Your task to perform on an android device: change keyboard looks Image 0: 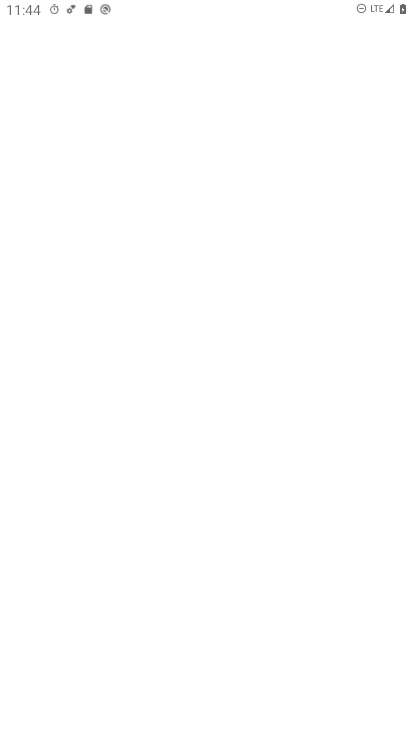
Step 0: press home button
Your task to perform on an android device: change keyboard looks Image 1: 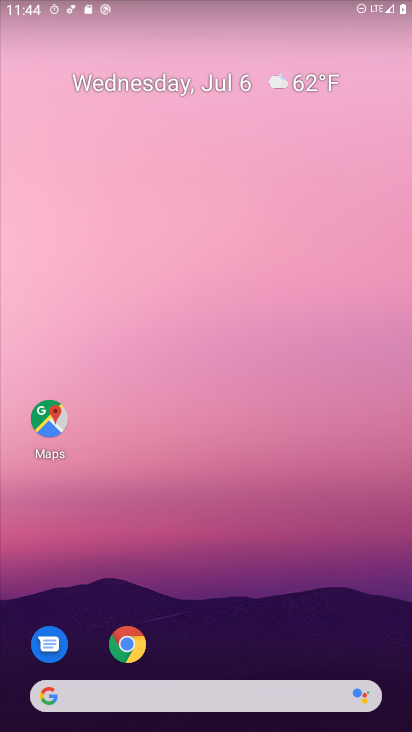
Step 1: drag from (287, 637) to (265, 4)
Your task to perform on an android device: change keyboard looks Image 2: 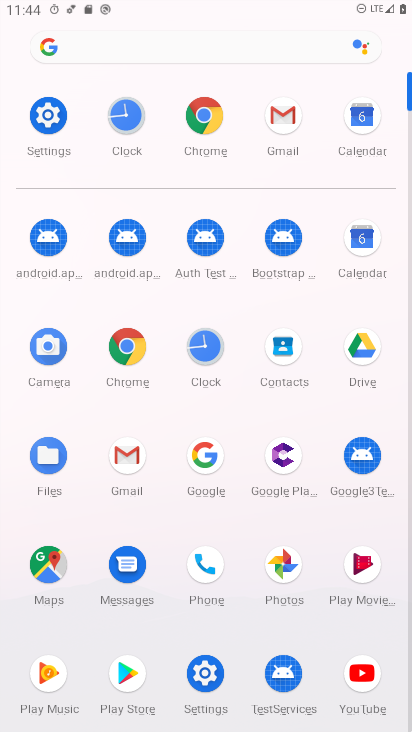
Step 2: click (47, 125)
Your task to perform on an android device: change keyboard looks Image 3: 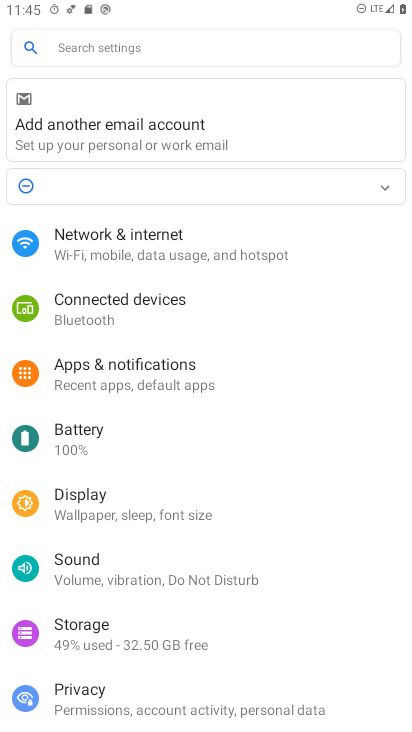
Step 3: drag from (368, 597) to (323, 108)
Your task to perform on an android device: change keyboard looks Image 4: 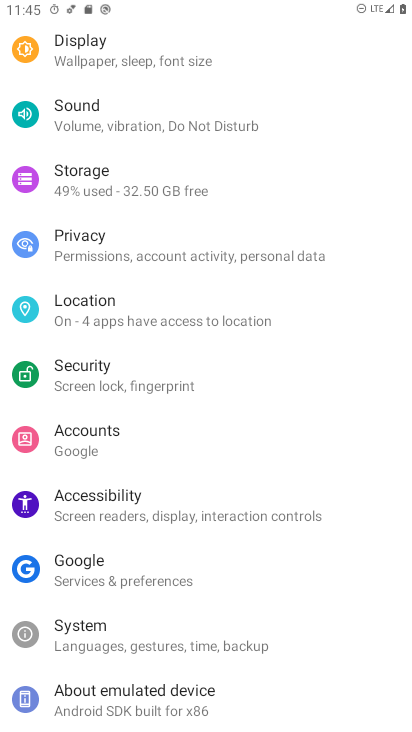
Step 4: click (112, 639)
Your task to perform on an android device: change keyboard looks Image 5: 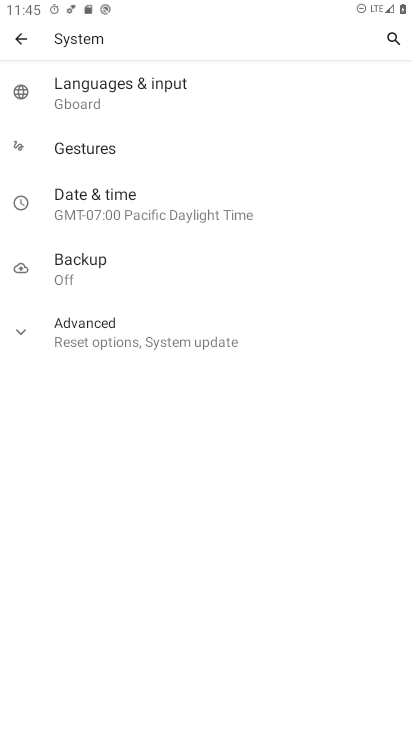
Step 5: click (99, 90)
Your task to perform on an android device: change keyboard looks Image 6: 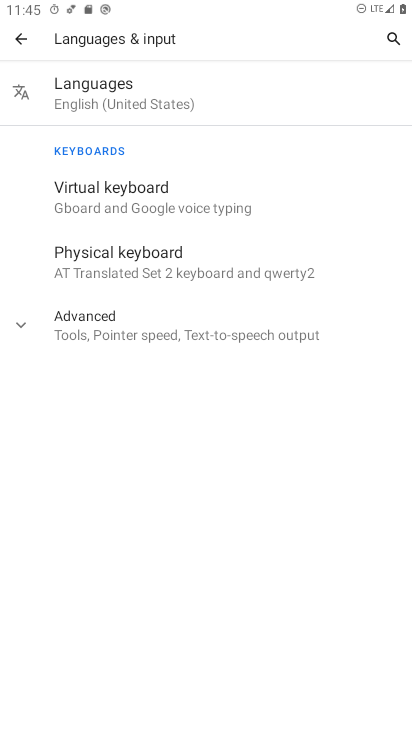
Step 6: click (113, 196)
Your task to perform on an android device: change keyboard looks Image 7: 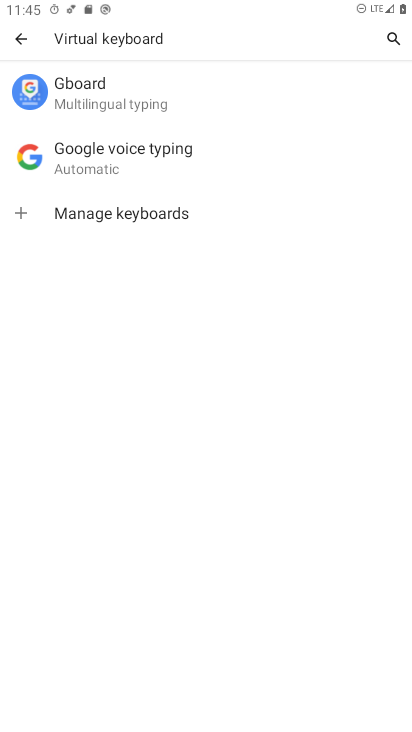
Step 7: click (76, 98)
Your task to perform on an android device: change keyboard looks Image 8: 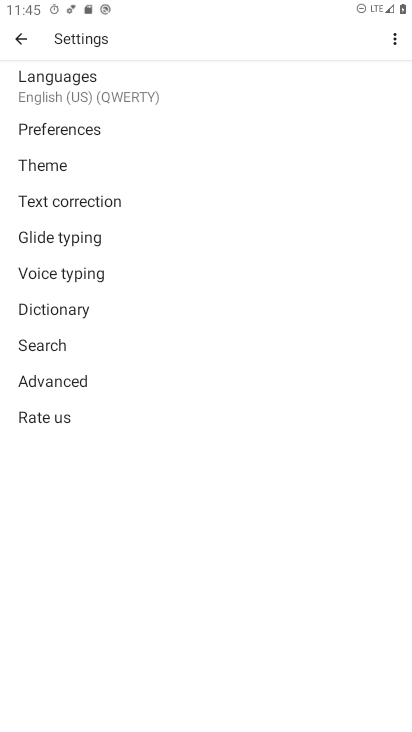
Step 8: click (41, 167)
Your task to perform on an android device: change keyboard looks Image 9: 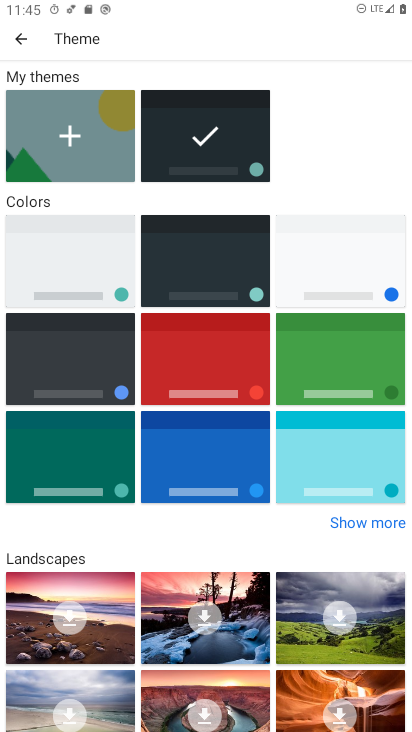
Step 9: click (207, 381)
Your task to perform on an android device: change keyboard looks Image 10: 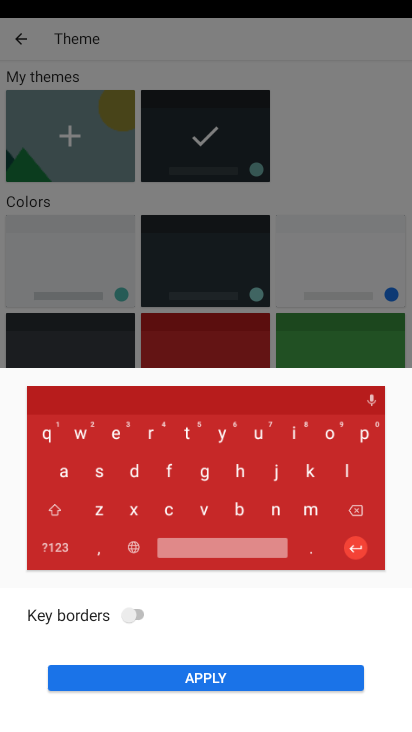
Step 10: click (135, 679)
Your task to perform on an android device: change keyboard looks Image 11: 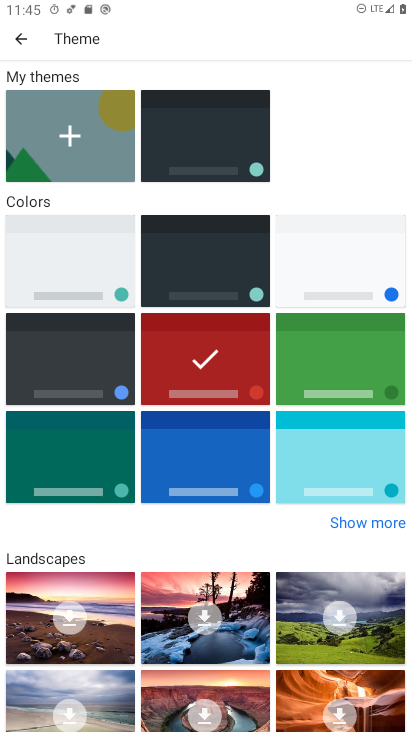
Step 11: task complete